Your task to perform on an android device: Go to privacy settings Image 0: 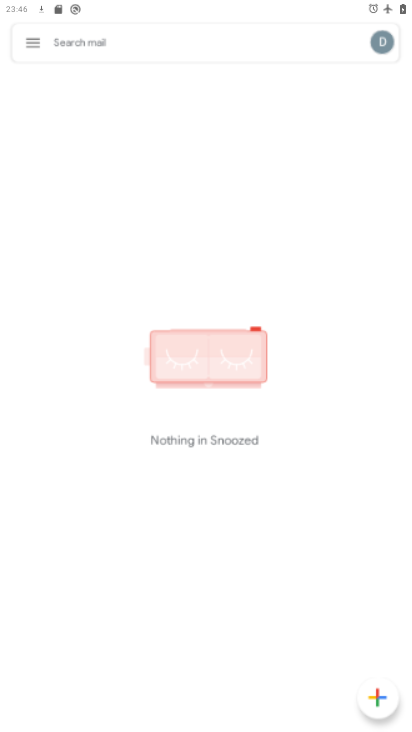
Step 0: drag from (259, 653) to (259, 346)
Your task to perform on an android device: Go to privacy settings Image 1: 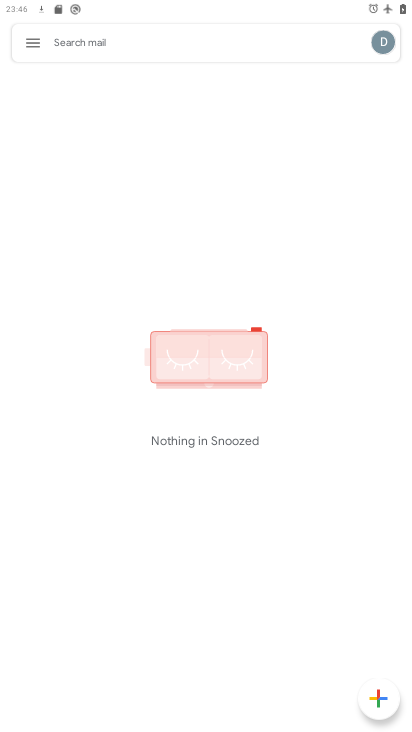
Step 1: press home button
Your task to perform on an android device: Go to privacy settings Image 2: 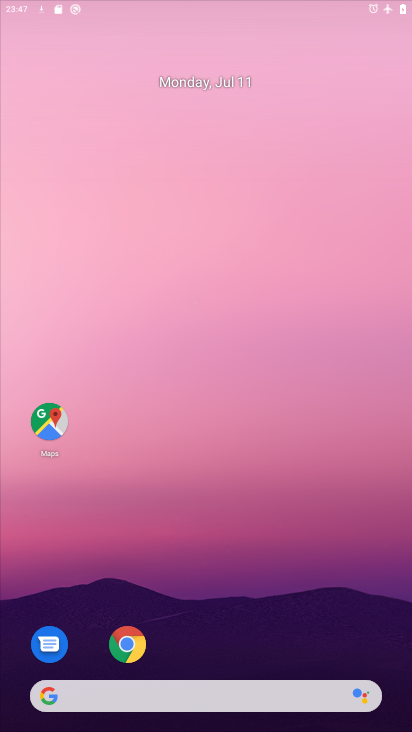
Step 2: drag from (274, 601) to (258, 206)
Your task to perform on an android device: Go to privacy settings Image 3: 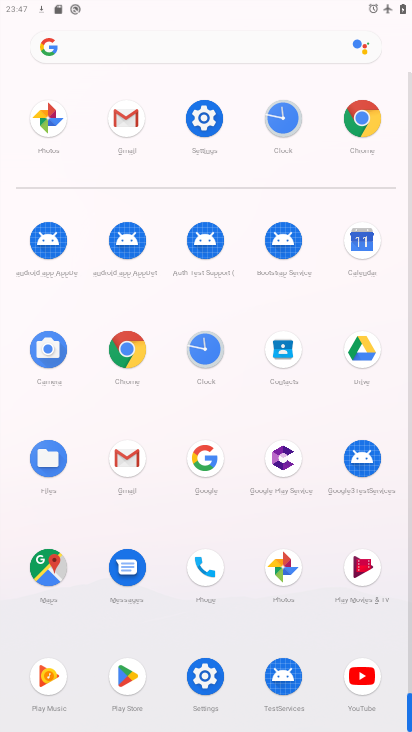
Step 3: click (199, 121)
Your task to perform on an android device: Go to privacy settings Image 4: 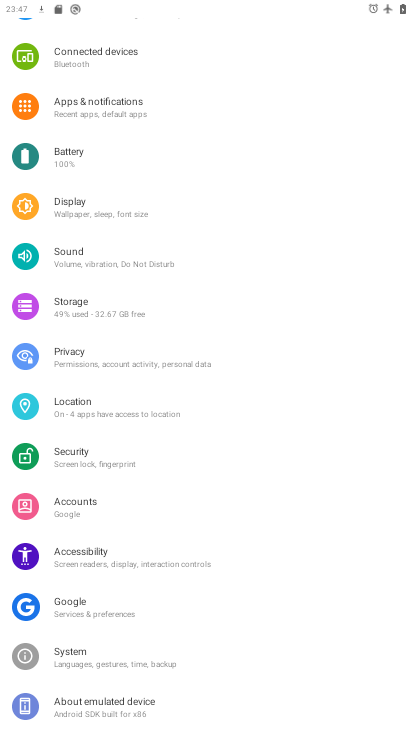
Step 4: click (100, 364)
Your task to perform on an android device: Go to privacy settings Image 5: 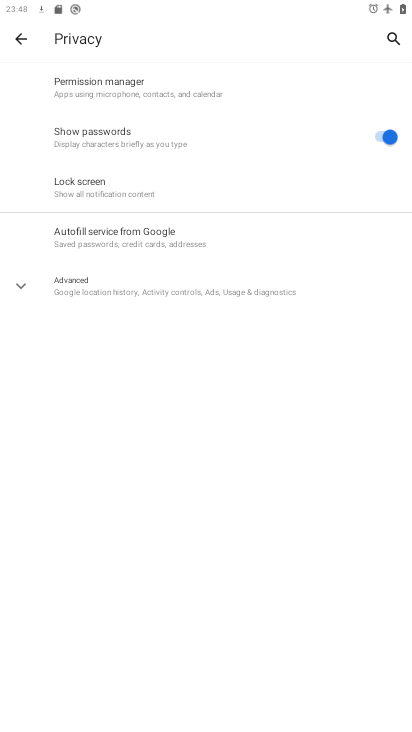
Step 5: task complete